Your task to perform on an android device: turn on javascript in the chrome app Image 0: 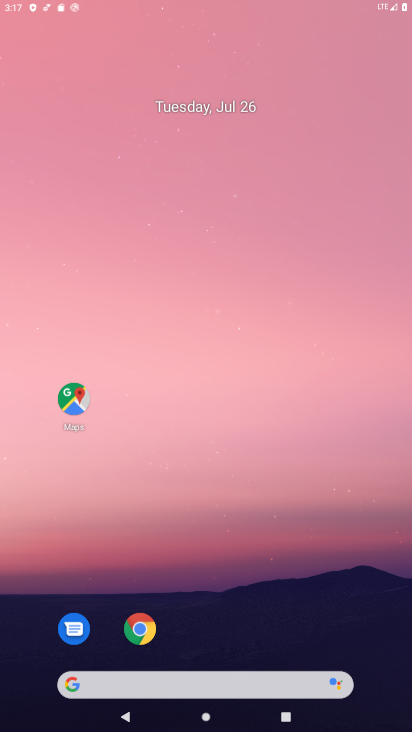
Step 0: click (235, 112)
Your task to perform on an android device: turn on javascript in the chrome app Image 1: 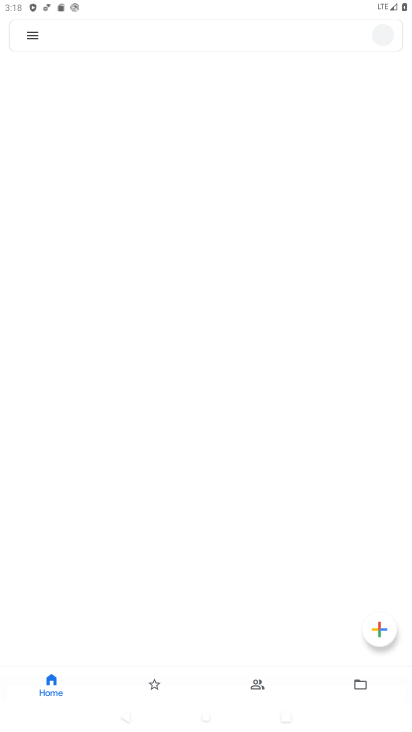
Step 1: drag from (233, 725) to (233, 242)
Your task to perform on an android device: turn on javascript in the chrome app Image 2: 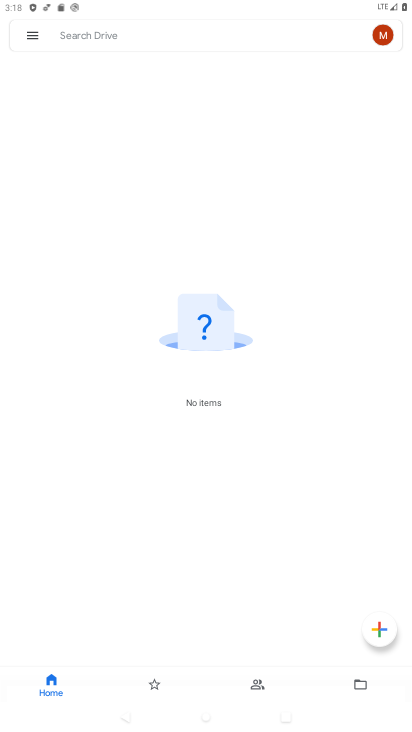
Step 2: press home button
Your task to perform on an android device: turn on javascript in the chrome app Image 3: 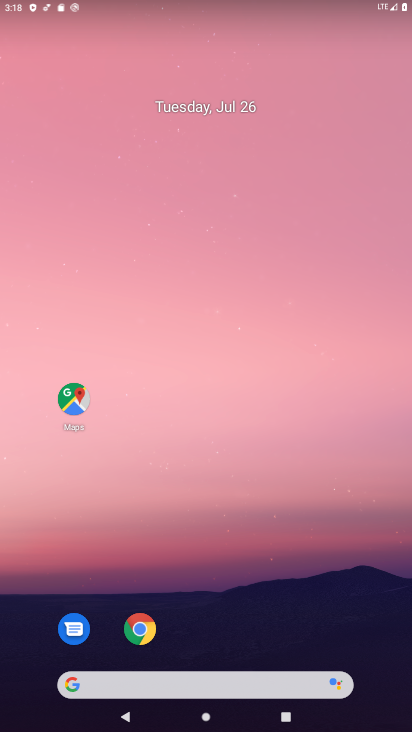
Step 3: drag from (229, 700) to (226, 380)
Your task to perform on an android device: turn on javascript in the chrome app Image 4: 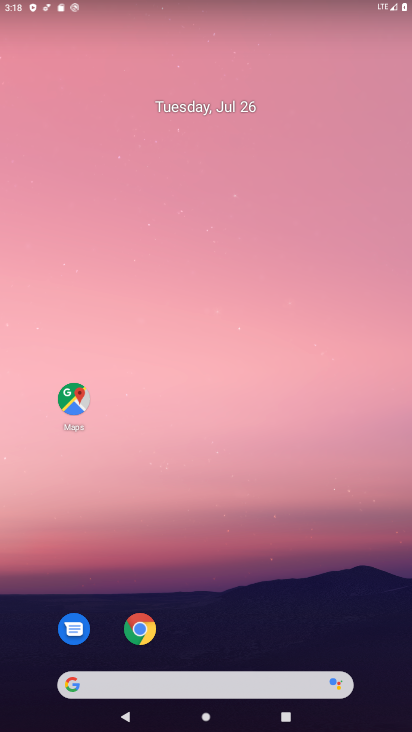
Step 4: click (140, 632)
Your task to perform on an android device: turn on javascript in the chrome app Image 5: 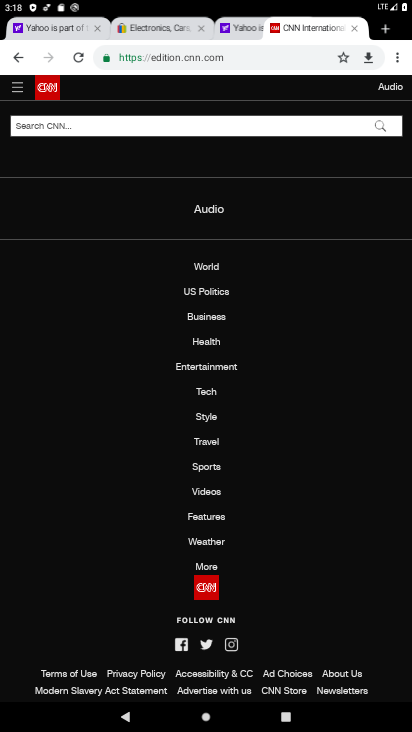
Step 5: click (398, 60)
Your task to perform on an android device: turn on javascript in the chrome app Image 6: 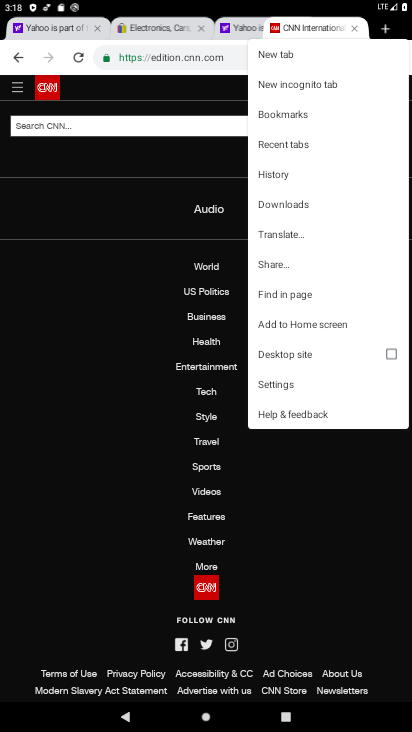
Step 6: click (280, 380)
Your task to perform on an android device: turn on javascript in the chrome app Image 7: 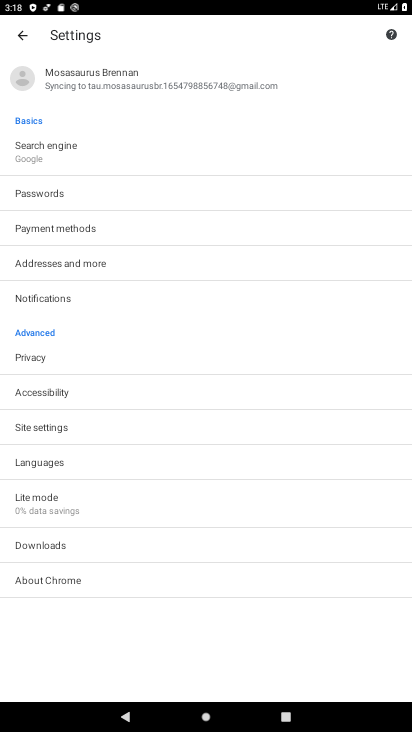
Step 7: click (39, 423)
Your task to perform on an android device: turn on javascript in the chrome app Image 8: 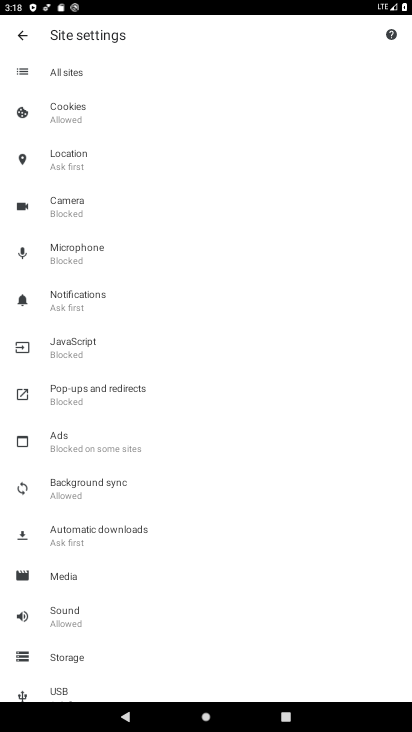
Step 8: click (67, 344)
Your task to perform on an android device: turn on javascript in the chrome app Image 9: 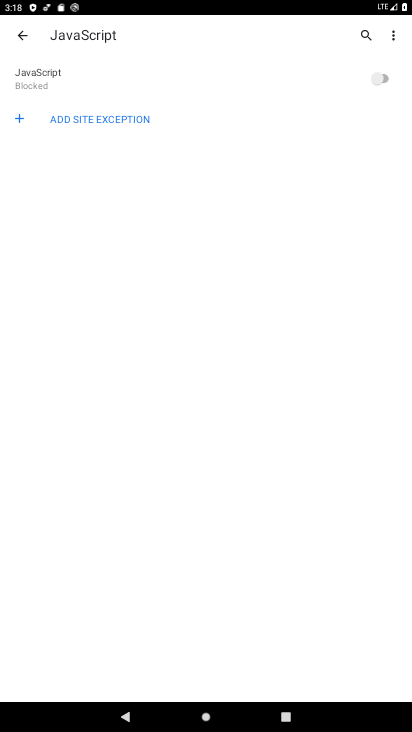
Step 9: click (384, 80)
Your task to perform on an android device: turn on javascript in the chrome app Image 10: 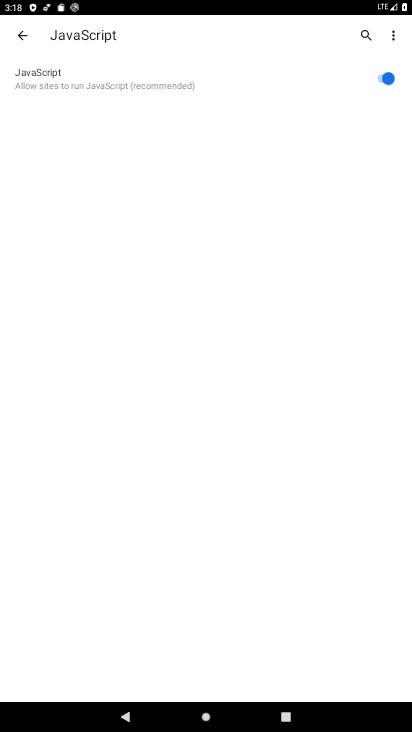
Step 10: task complete